Your task to perform on an android device: turn off priority inbox in the gmail app Image 0: 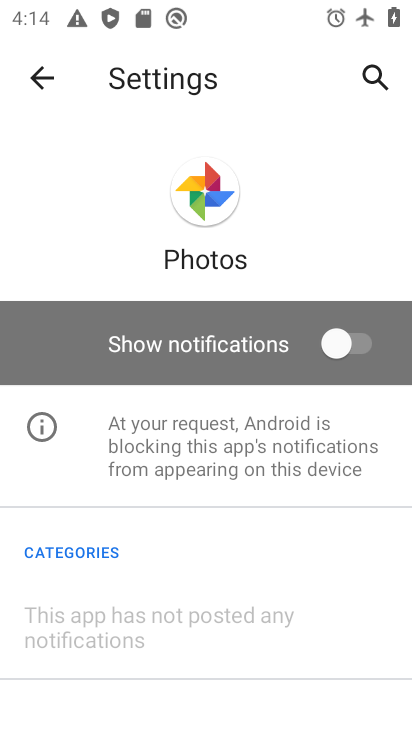
Step 0: press home button
Your task to perform on an android device: turn off priority inbox in the gmail app Image 1: 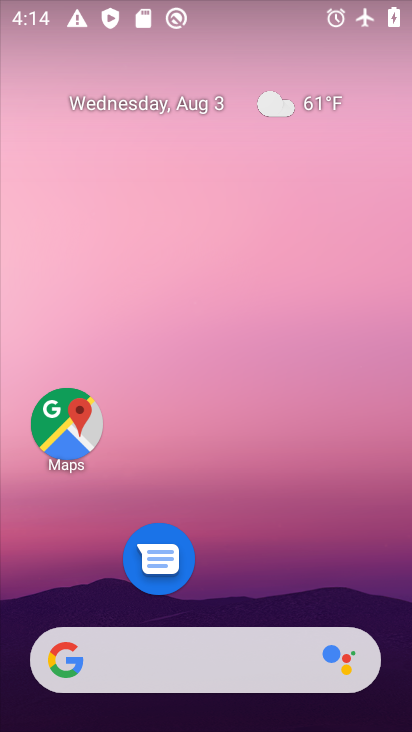
Step 1: drag from (219, 619) to (241, 284)
Your task to perform on an android device: turn off priority inbox in the gmail app Image 2: 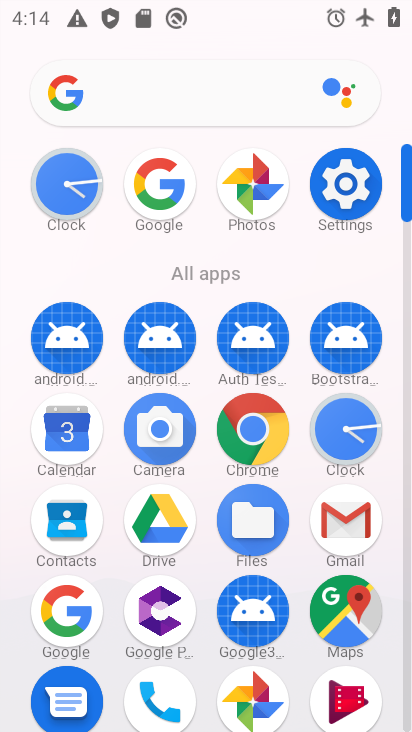
Step 2: click (346, 532)
Your task to perform on an android device: turn off priority inbox in the gmail app Image 3: 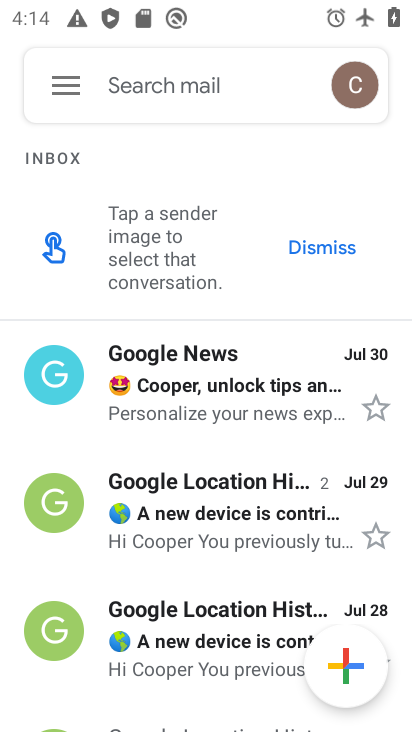
Step 3: click (74, 77)
Your task to perform on an android device: turn off priority inbox in the gmail app Image 4: 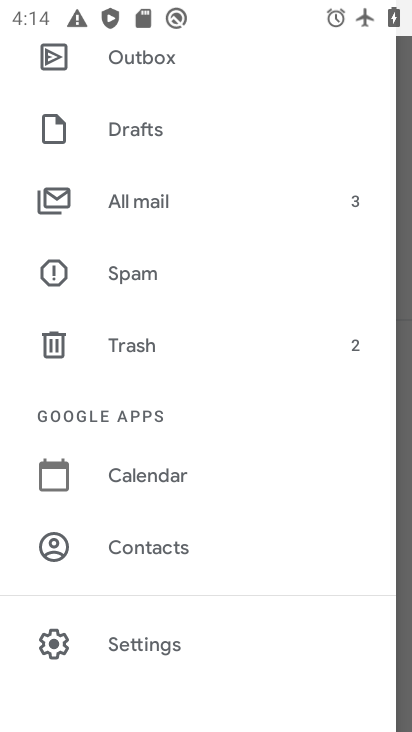
Step 4: click (150, 643)
Your task to perform on an android device: turn off priority inbox in the gmail app Image 5: 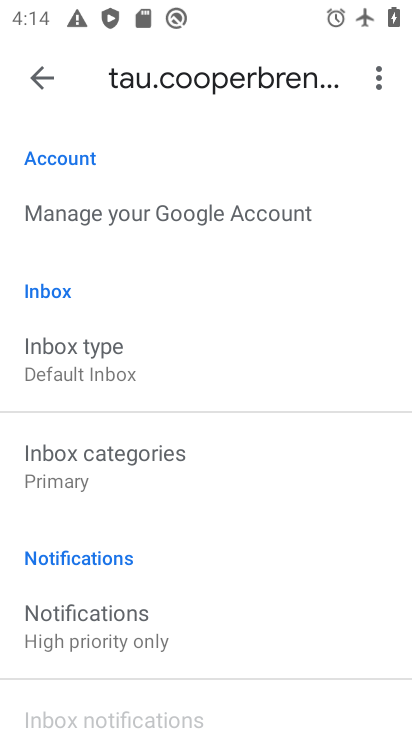
Step 5: drag from (109, 605) to (83, 284)
Your task to perform on an android device: turn off priority inbox in the gmail app Image 6: 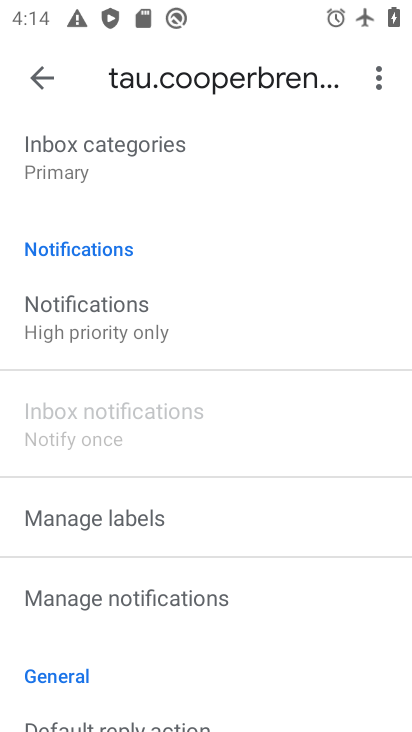
Step 6: drag from (128, 652) to (119, 363)
Your task to perform on an android device: turn off priority inbox in the gmail app Image 7: 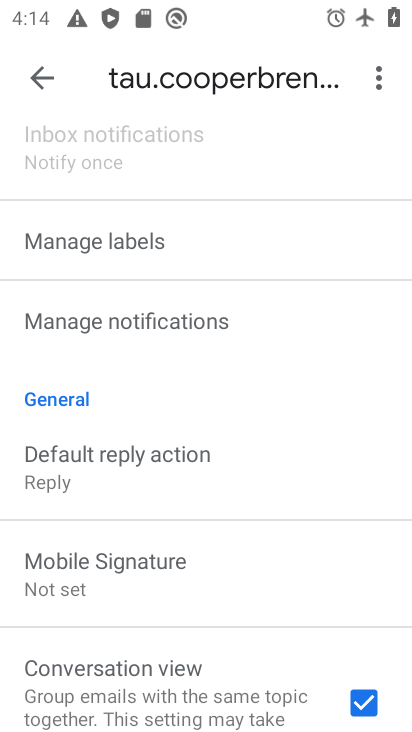
Step 7: drag from (88, 172) to (141, 512)
Your task to perform on an android device: turn off priority inbox in the gmail app Image 8: 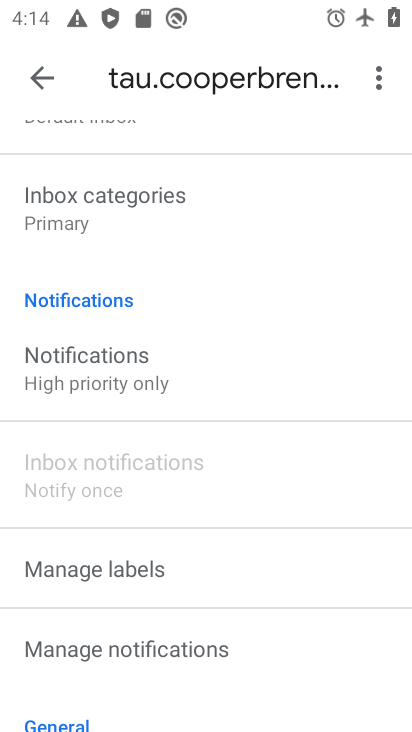
Step 8: drag from (94, 186) to (142, 550)
Your task to perform on an android device: turn off priority inbox in the gmail app Image 9: 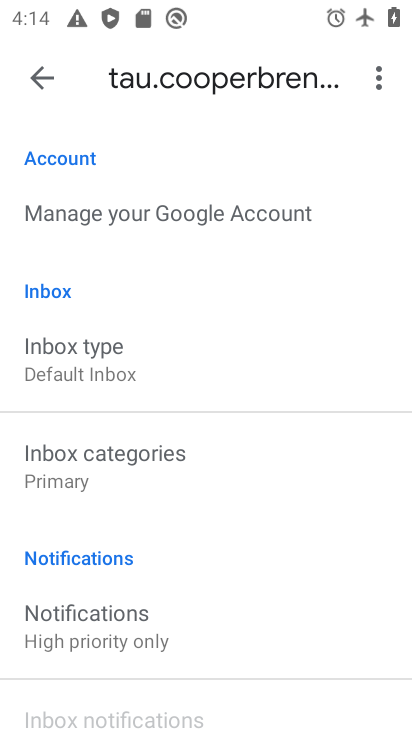
Step 9: click (76, 364)
Your task to perform on an android device: turn off priority inbox in the gmail app Image 10: 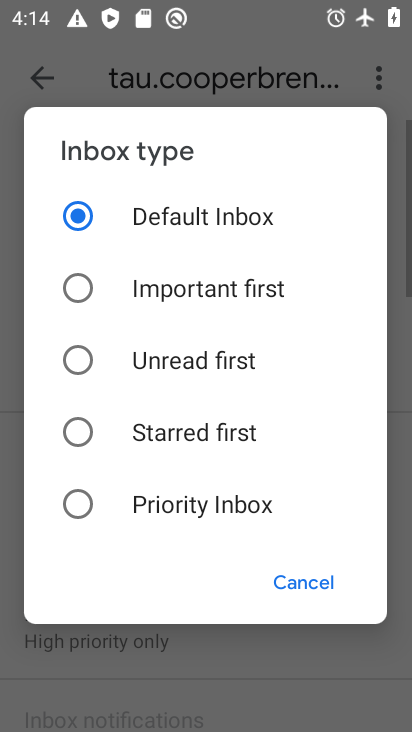
Step 10: click (164, 500)
Your task to perform on an android device: turn off priority inbox in the gmail app Image 11: 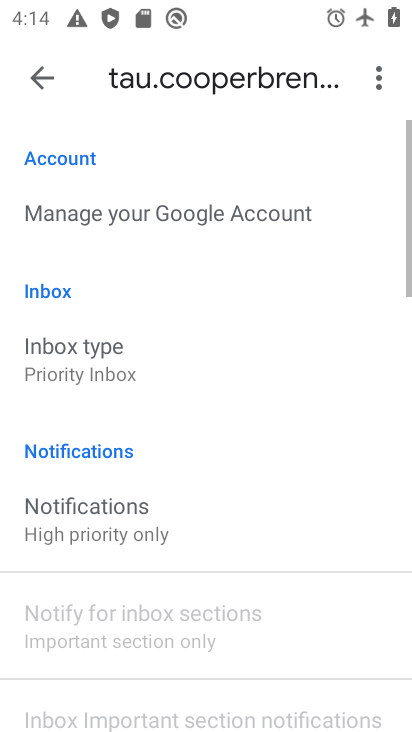
Step 11: click (82, 365)
Your task to perform on an android device: turn off priority inbox in the gmail app Image 12: 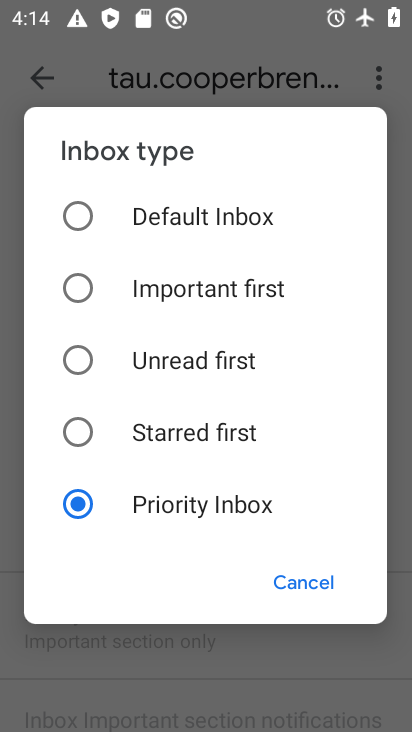
Step 12: click (98, 287)
Your task to perform on an android device: turn off priority inbox in the gmail app Image 13: 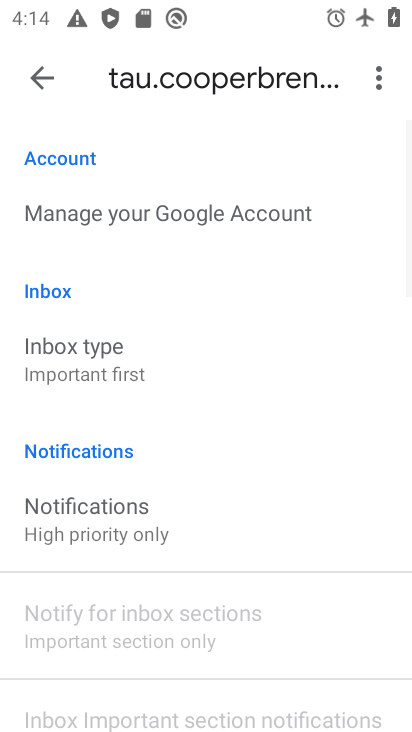
Step 13: task complete